Your task to perform on an android device: Open Google Chrome and click the shortcut for Amazon.com Image 0: 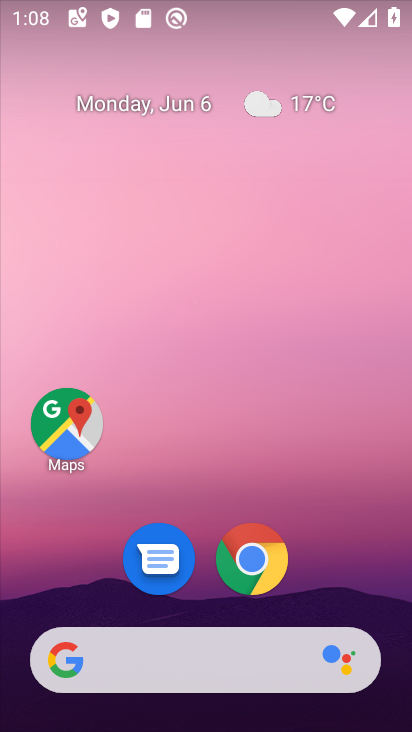
Step 0: drag from (333, 314) to (335, 94)
Your task to perform on an android device: Open Google Chrome and click the shortcut for Amazon.com Image 1: 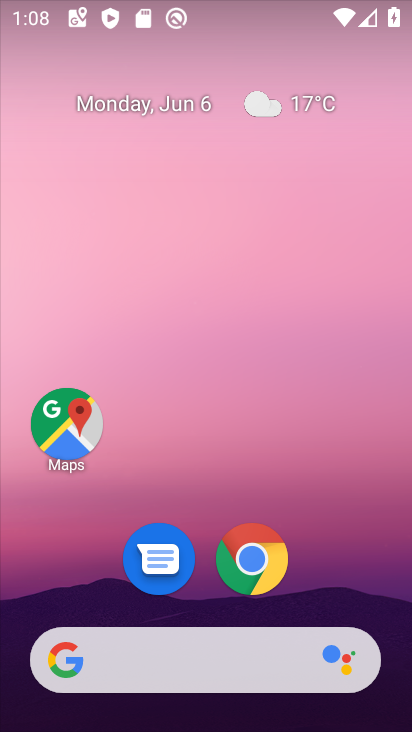
Step 1: drag from (405, 599) to (365, 127)
Your task to perform on an android device: Open Google Chrome and click the shortcut for Amazon.com Image 2: 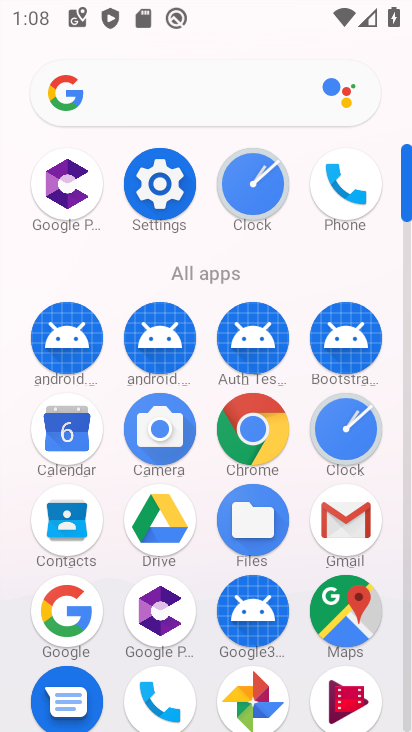
Step 2: click (269, 427)
Your task to perform on an android device: Open Google Chrome and click the shortcut for Amazon.com Image 3: 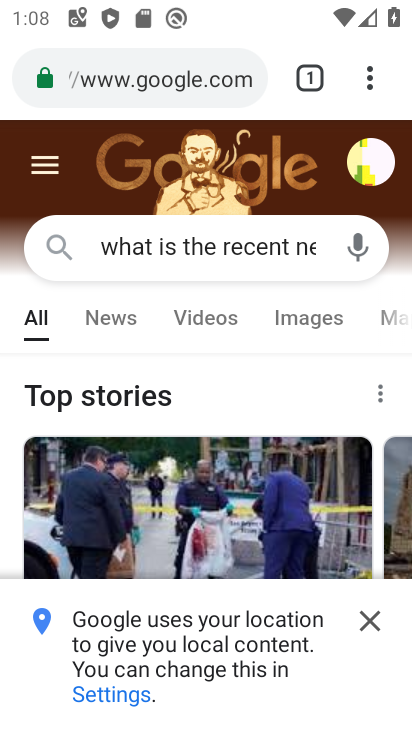
Step 3: drag from (368, 81) to (0, 447)
Your task to perform on an android device: Open Google Chrome and click the shortcut for Amazon.com Image 4: 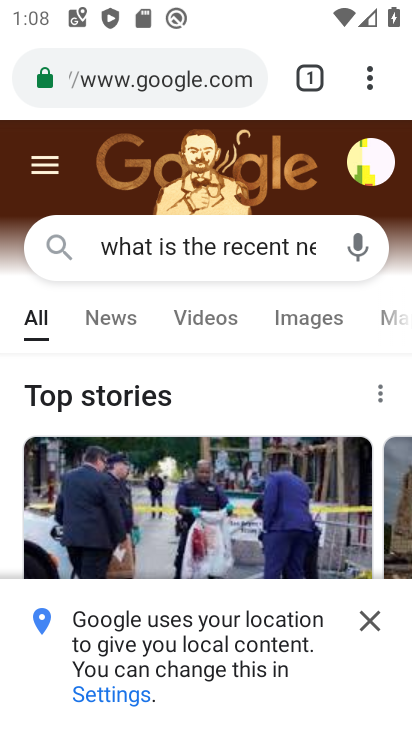
Step 4: click (321, 82)
Your task to perform on an android device: Open Google Chrome and click the shortcut for Amazon.com Image 5: 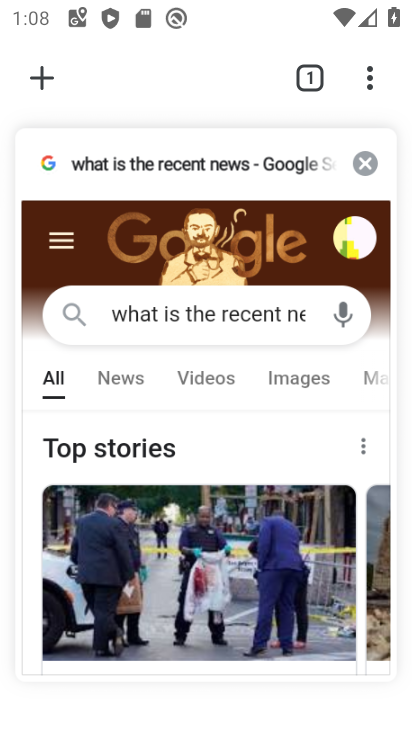
Step 5: click (41, 87)
Your task to perform on an android device: Open Google Chrome and click the shortcut for Amazon.com Image 6: 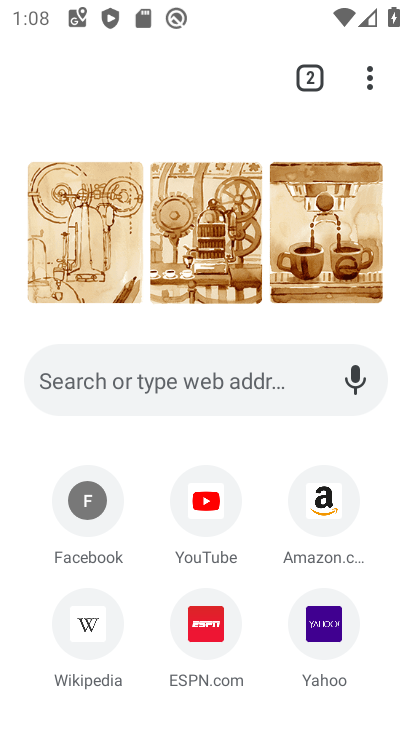
Step 6: click (335, 524)
Your task to perform on an android device: Open Google Chrome and click the shortcut for Amazon.com Image 7: 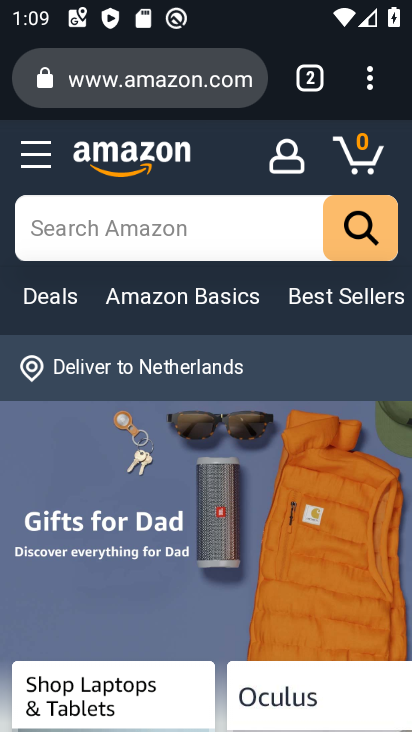
Step 7: task complete